Your task to perform on an android device: Open the map Image 0: 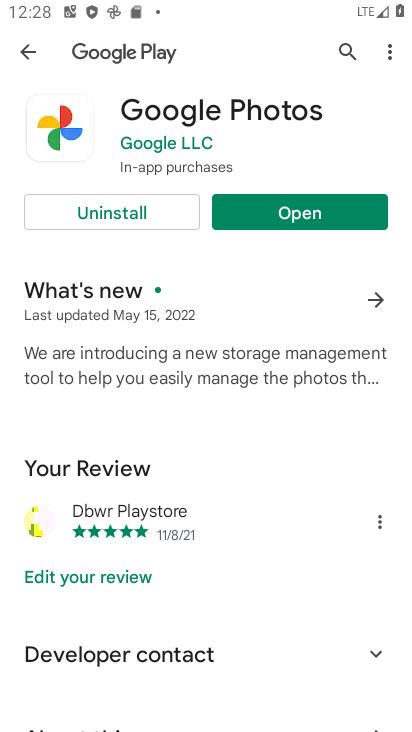
Step 0: press home button
Your task to perform on an android device: Open the map Image 1: 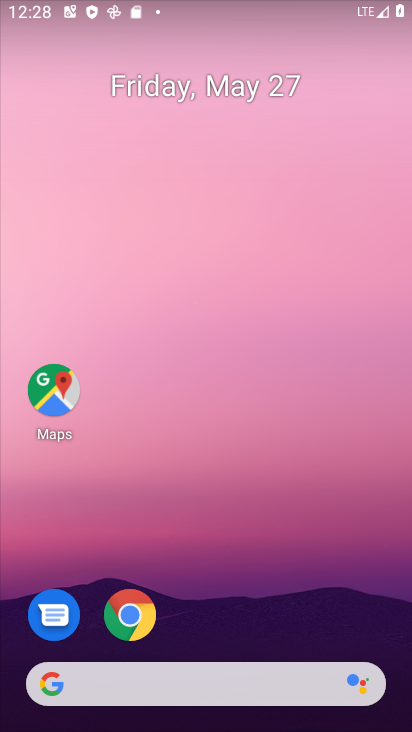
Step 1: drag from (292, 663) to (314, 3)
Your task to perform on an android device: Open the map Image 2: 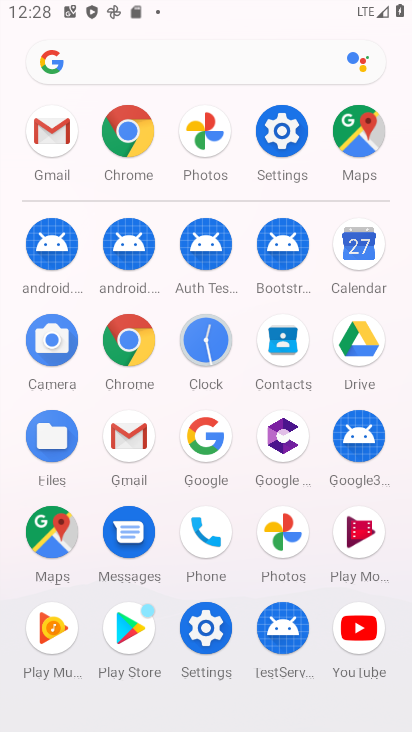
Step 2: click (45, 530)
Your task to perform on an android device: Open the map Image 3: 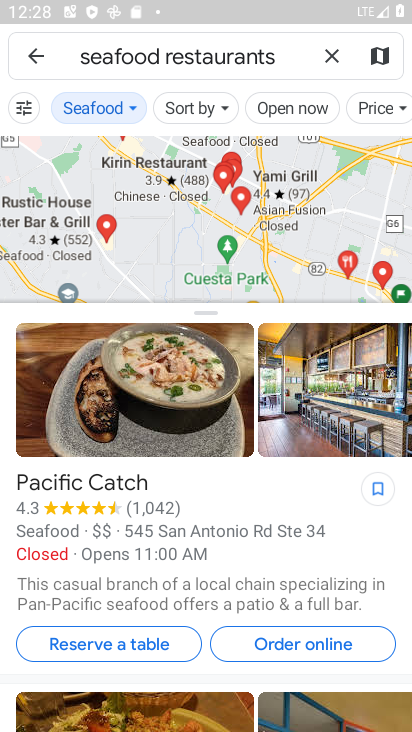
Step 3: task complete